Your task to perform on an android device: Go to Amazon Image 0: 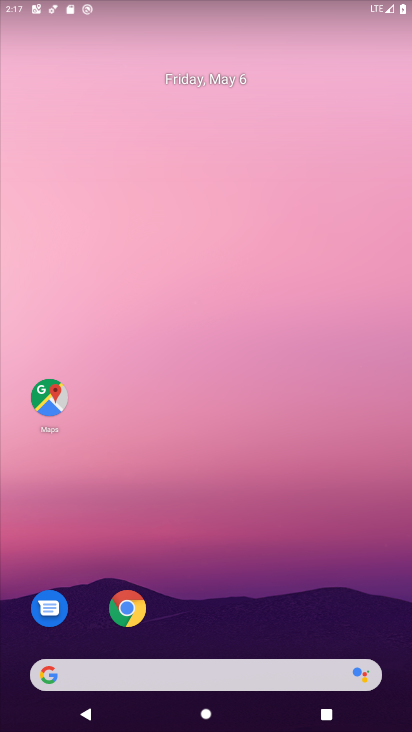
Step 0: click (124, 608)
Your task to perform on an android device: Go to Amazon Image 1: 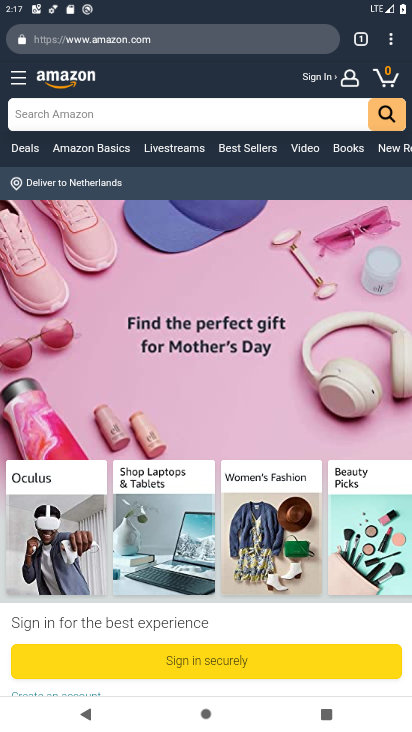
Step 1: task complete